Your task to perform on an android device: Go to calendar. Show me events next week Image 0: 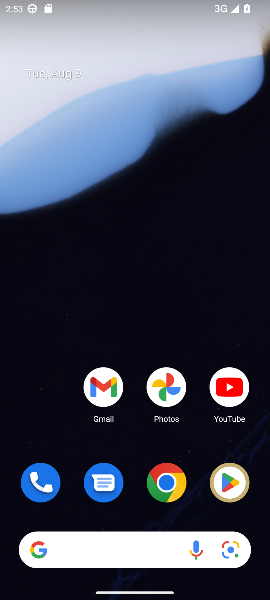
Step 0: drag from (131, 445) to (107, 95)
Your task to perform on an android device: Go to calendar. Show me events next week Image 1: 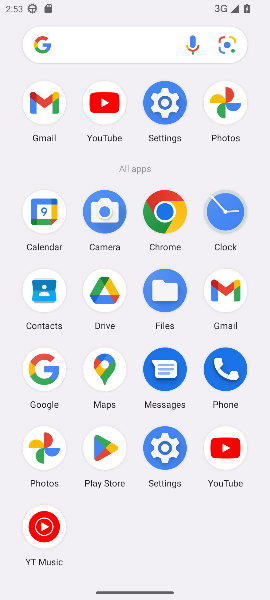
Step 1: click (42, 226)
Your task to perform on an android device: Go to calendar. Show me events next week Image 2: 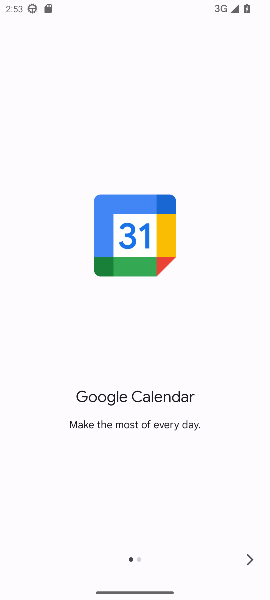
Step 2: click (246, 564)
Your task to perform on an android device: Go to calendar. Show me events next week Image 3: 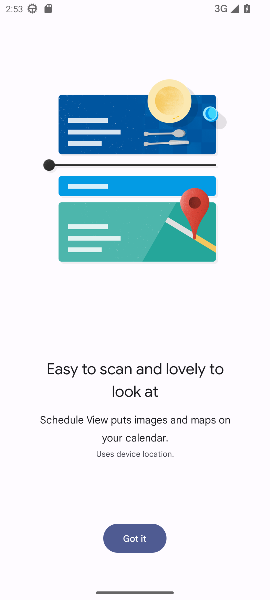
Step 3: click (110, 540)
Your task to perform on an android device: Go to calendar. Show me events next week Image 4: 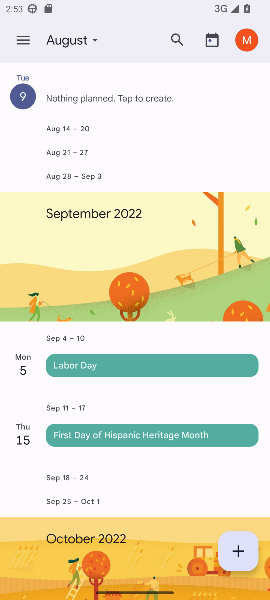
Step 4: click (84, 50)
Your task to perform on an android device: Go to calendar. Show me events next week Image 5: 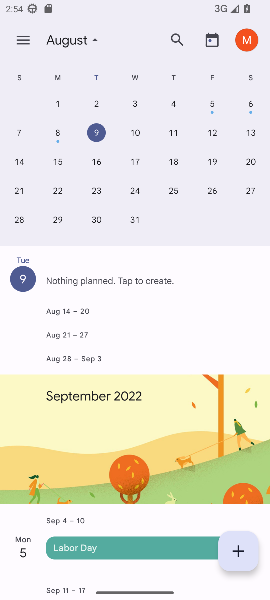
Step 5: click (20, 156)
Your task to perform on an android device: Go to calendar. Show me events next week Image 6: 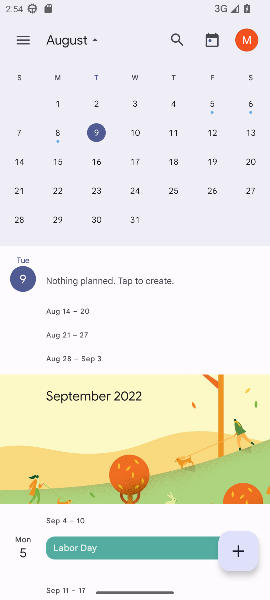
Step 6: click (20, 156)
Your task to perform on an android device: Go to calendar. Show me events next week Image 7: 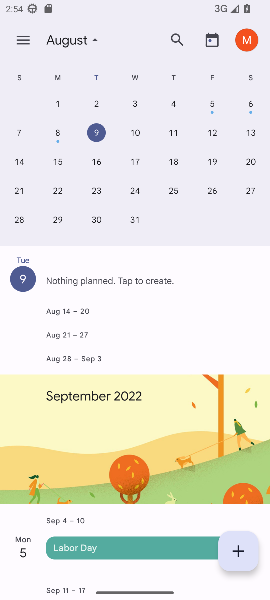
Step 7: click (20, 162)
Your task to perform on an android device: Go to calendar. Show me events next week Image 8: 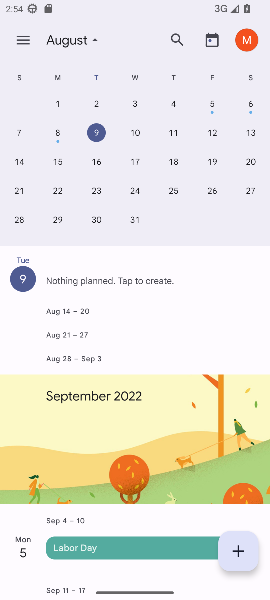
Step 8: click (66, 169)
Your task to perform on an android device: Go to calendar. Show me events next week Image 9: 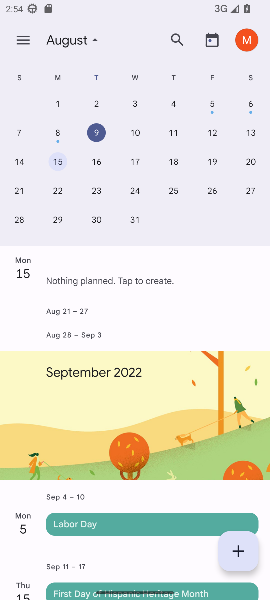
Step 9: click (57, 166)
Your task to perform on an android device: Go to calendar. Show me events next week Image 10: 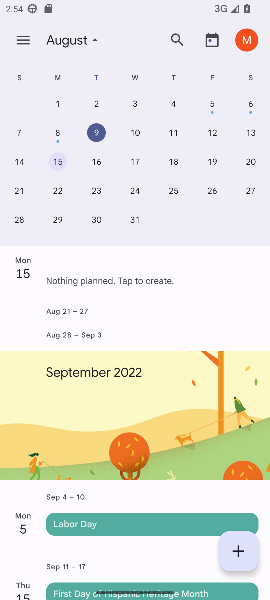
Step 10: click (14, 162)
Your task to perform on an android device: Go to calendar. Show me events next week Image 11: 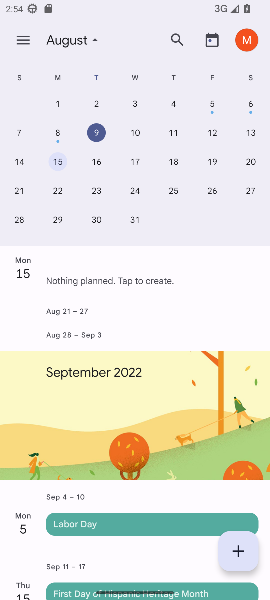
Step 11: task complete